Your task to perform on an android device: Clear the cart on target. Add "asus zenbook" to the cart on target, then select checkout. Image 0: 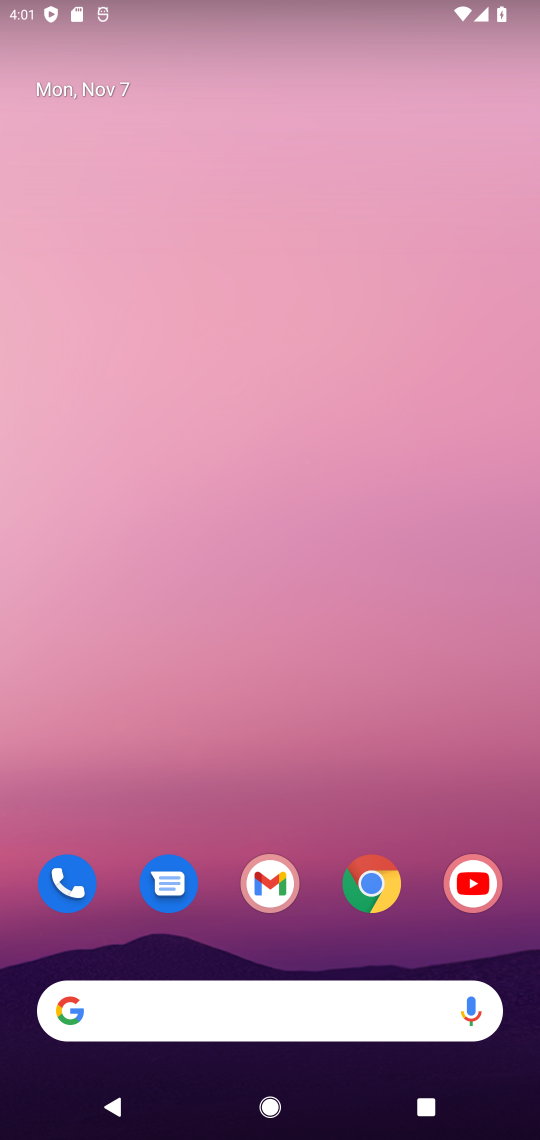
Step 0: click (374, 880)
Your task to perform on an android device: Clear the cart on target. Add "asus zenbook" to the cart on target, then select checkout. Image 1: 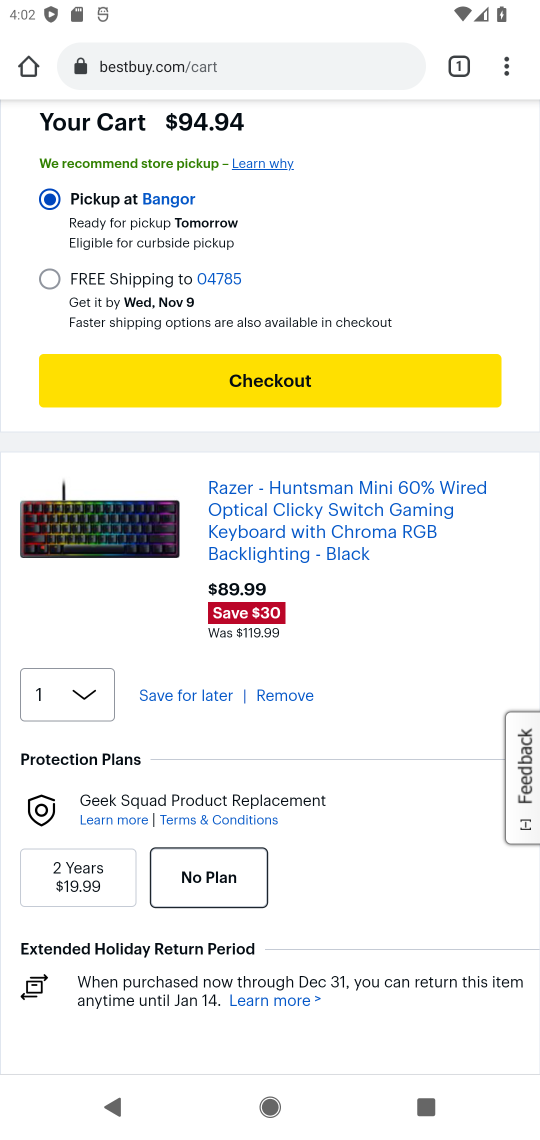
Step 1: click (249, 60)
Your task to perform on an android device: Clear the cart on target. Add "asus zenbook" to the cart on target, then select checkout. Image 2: 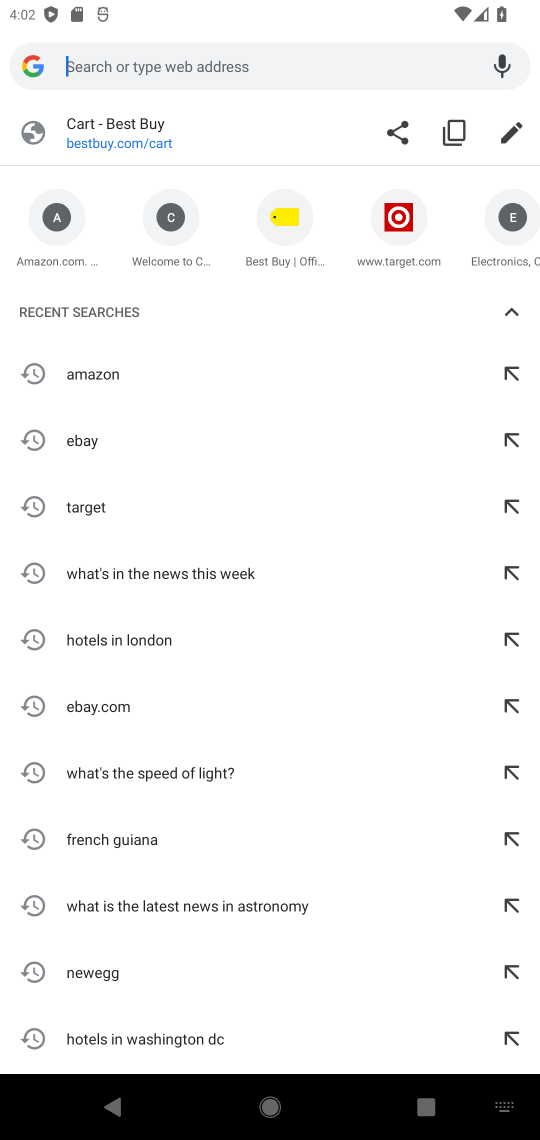
Step 2: type "target"
Your task to perform on an android device: Clear the cart on target. Add "asus zenbook" to the cart on target, then select checkout. Image 3: 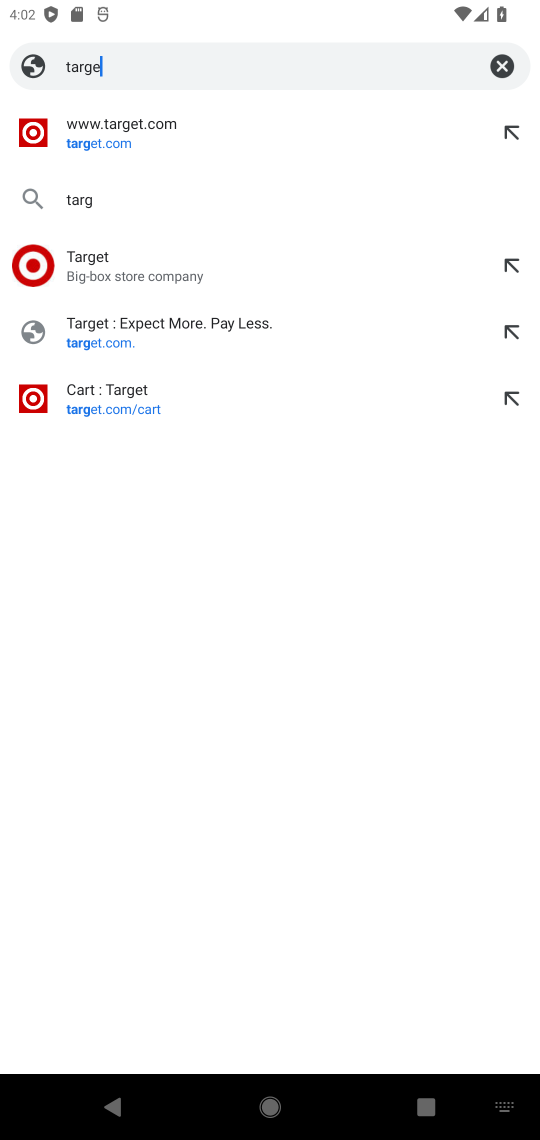
Step 3: press enter
Your task to perform on an android device: Clear the cart on target. Add "asus zenbook" to the cart on target, then select checkout. Image 4: 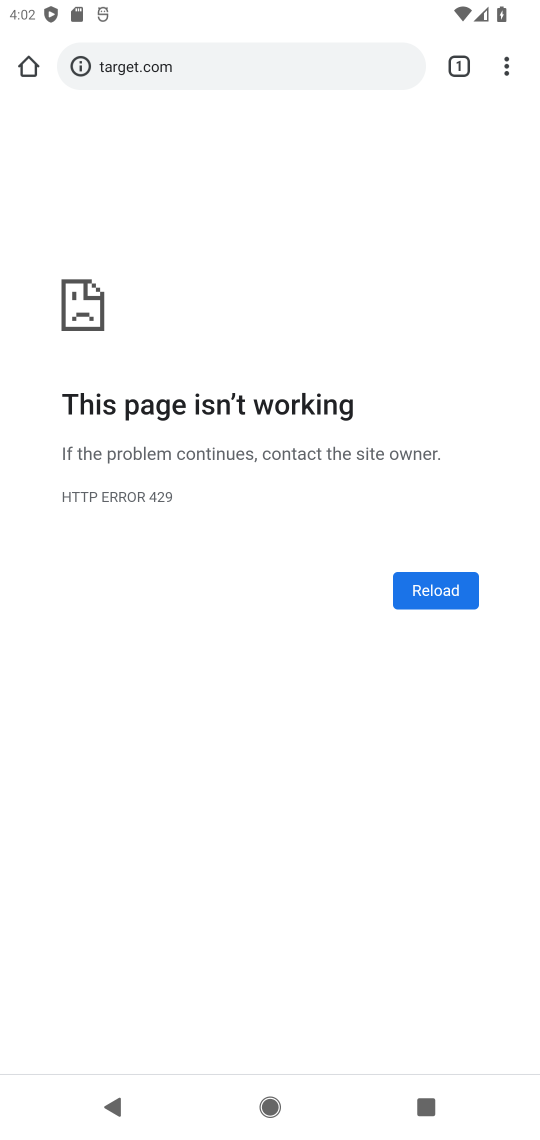
Step 4: task complete